Your task to perform on an android device: turn on improve location accuracy Image 0: 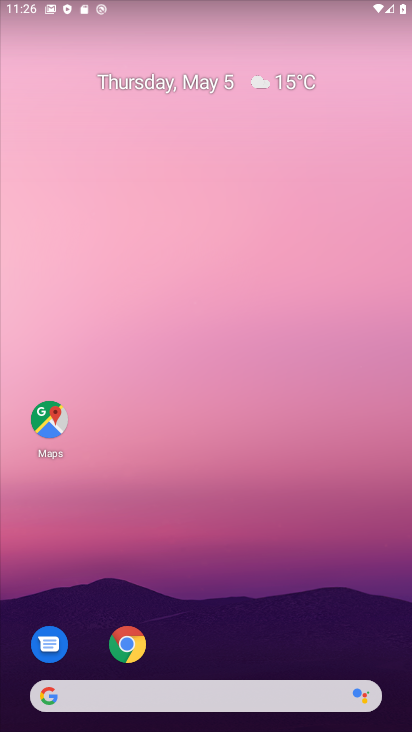
Step 0: drag from (192, 626) to (268, 13)
Your task to perform on an android device: turn on improve location accuracy Image 1: 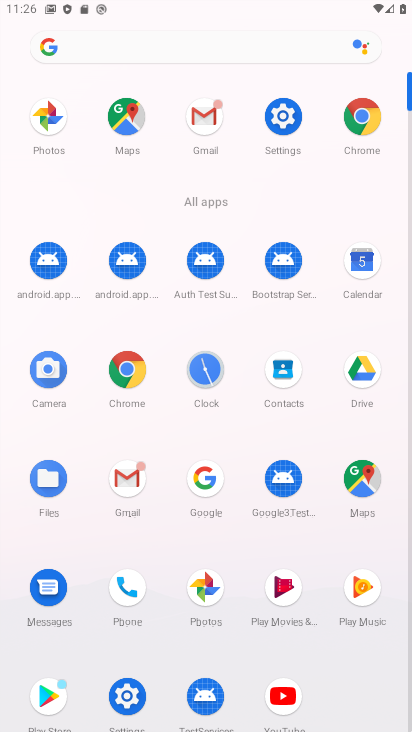
Step 1: click (292, 112)
Your task to perform on an android device: turn on improve location accuracy Image 2: 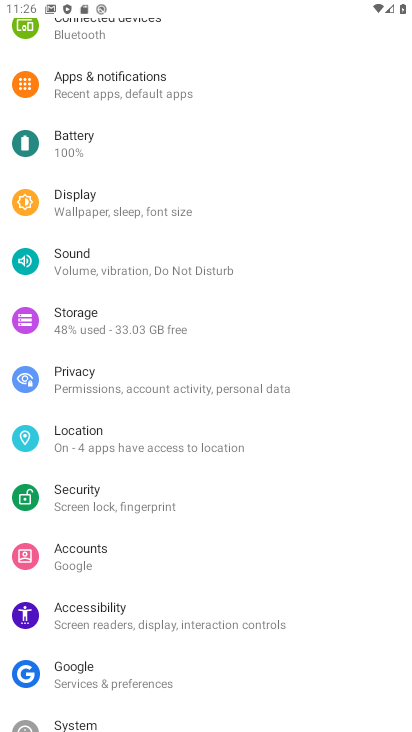
Step 2: click (116, 435)
Your task to perform on an android device: turn on improve location accuracy Image 3: 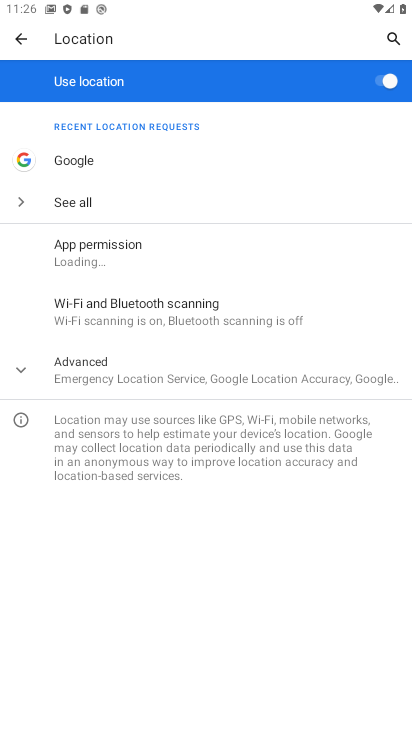
Step 3: click (144, 378)
Your task to perform on an android device: turn on improve location accuracy Image 4: 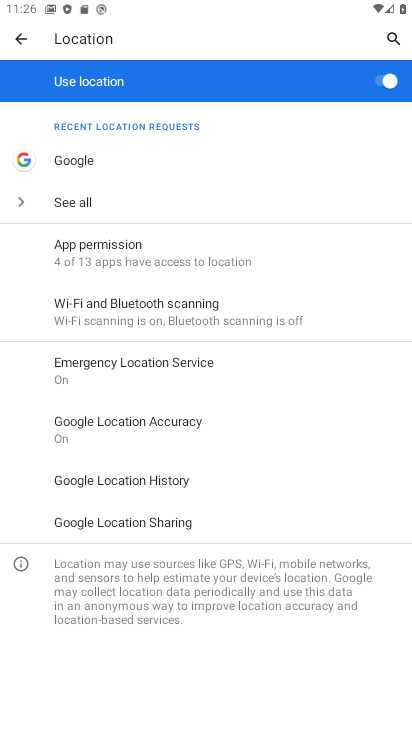
Step 4: click (127, 433)
Your task to perform on an android device: turn on improve location accuracy Image 5: 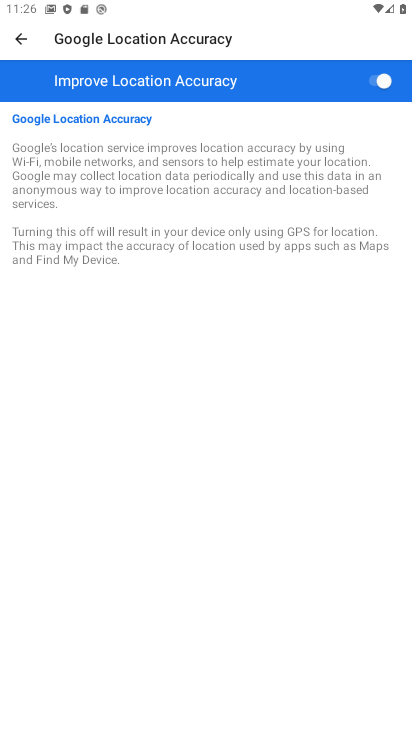
Step 5: task complete